Your task to perform on an android device: change keyboard looks Image 0: 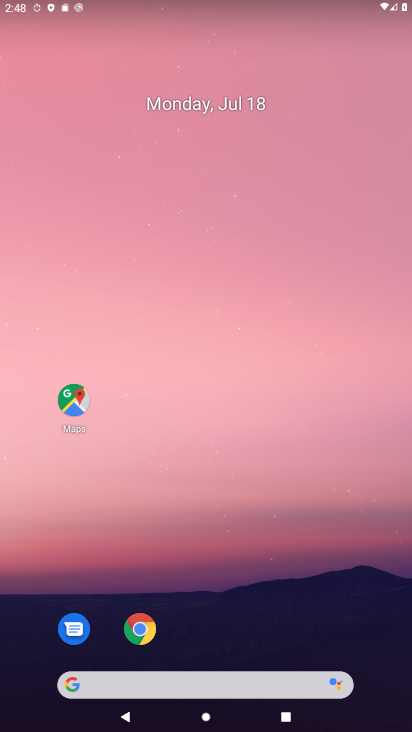
Step 0: press home button
Your task to perform on an android device: change keyboard looks Image 1: 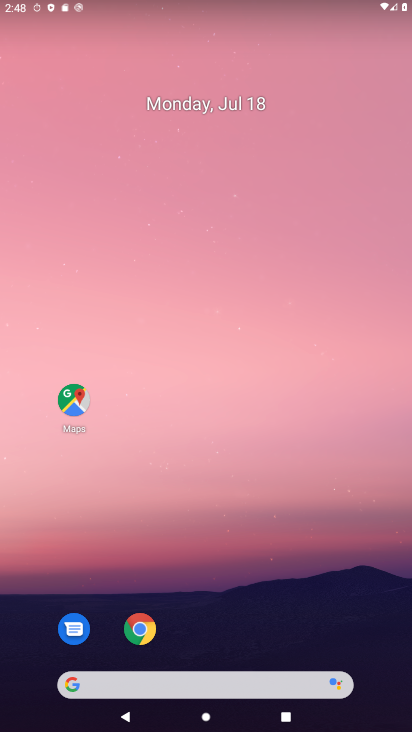
Step 1: drag from (223, 642) to (231, 52)
Your task to perform on an android device: change keyboard looks Image 2: 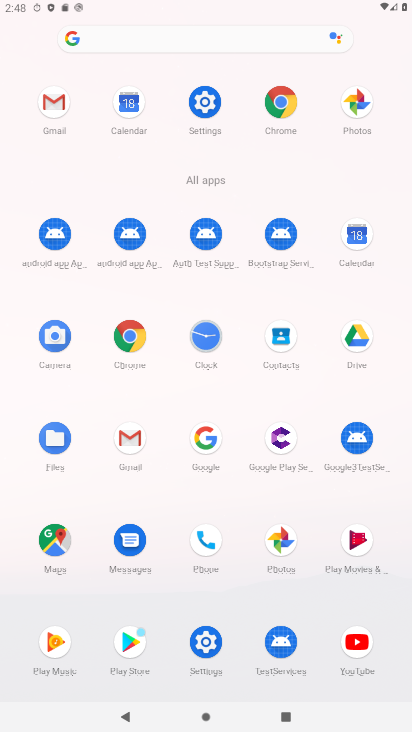
Step 2: click (205, 647)
Your task to perform on an android device: change keyboard looks Image 3: 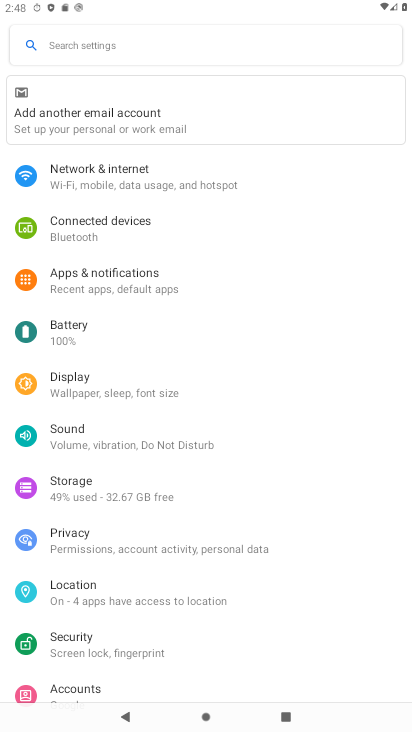
Step 3: drag from (151, 630) to (231, 144)
Your task to perform on an android device: change keyboard looks Image 4: 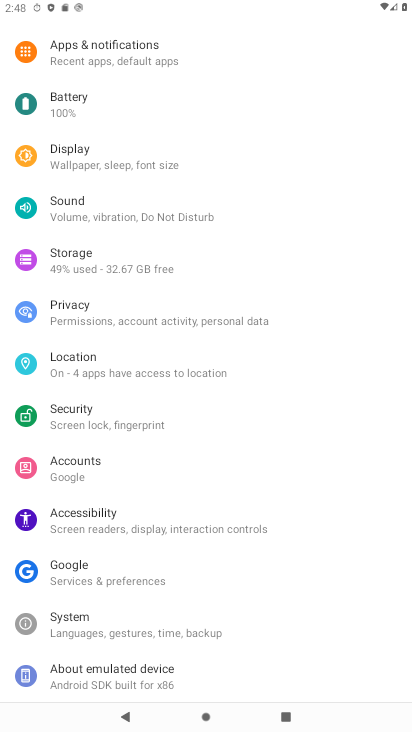
Step 4: click (97, 625)
Your task to perform on an android device: change keyboard looks Image 5: 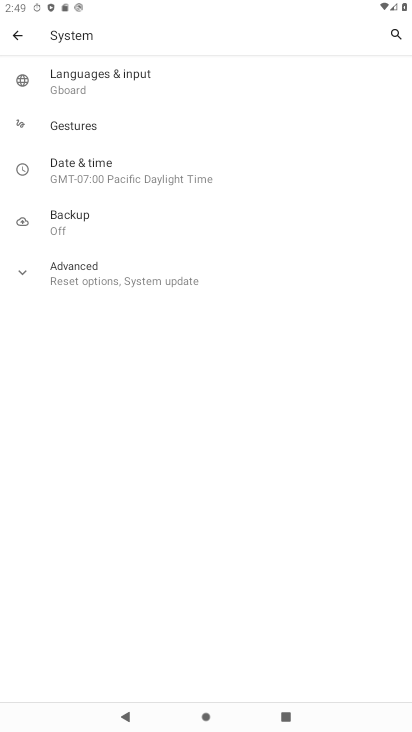
Step 5: click (106, 88)
Your task to perform on an android device: change keyboard looks Image 6: 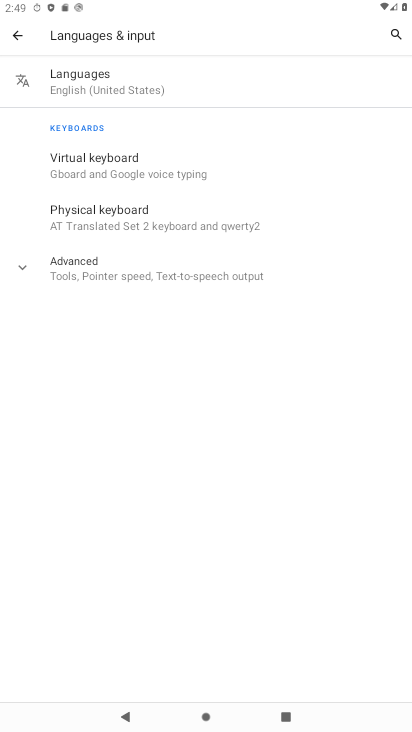
Step 6: click (106, 157)
Your task to perform on an android device: change keyboard looks Image 7: 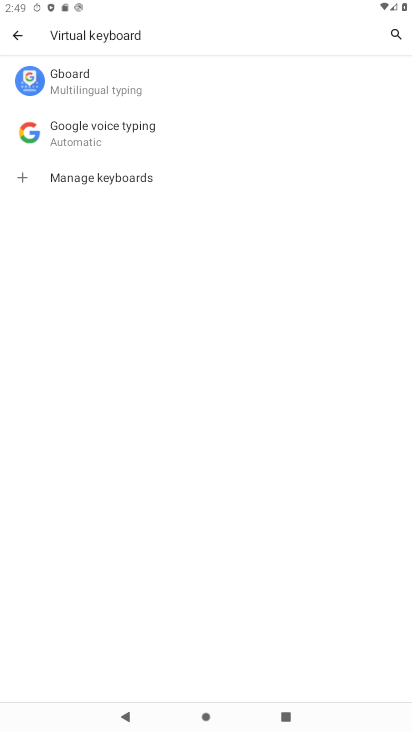
Step 7: click (94, 76)
Your task to perform on an android device: change keyboard looks Image 8: 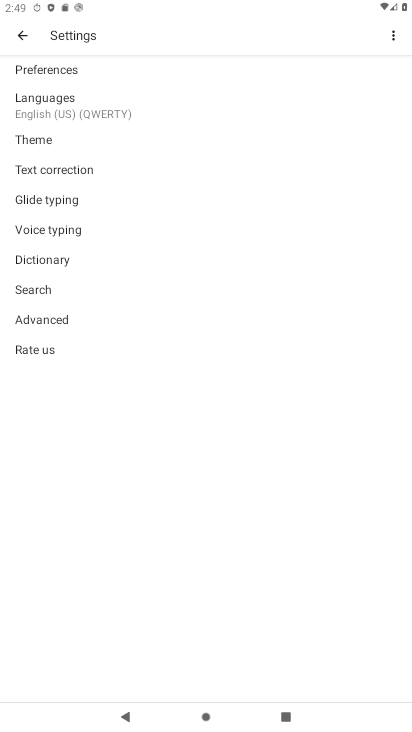
Step 8: click (53, 146)
Your task to perform on an android device: change keyboard looks Image 9: 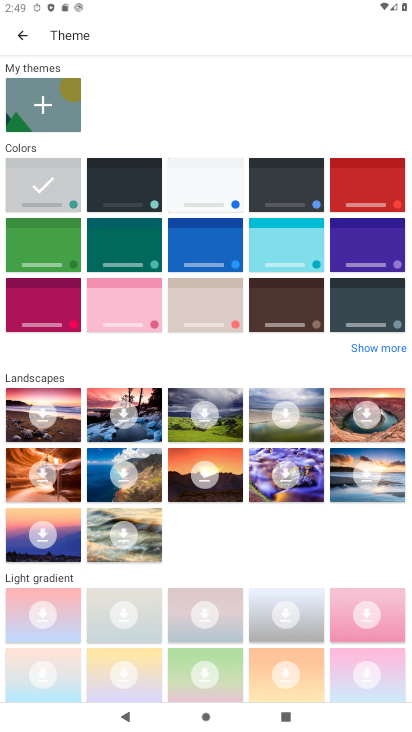
Step 9: click (118, 190)
Your task to perform on an android device: change keyboard looks Image 10: 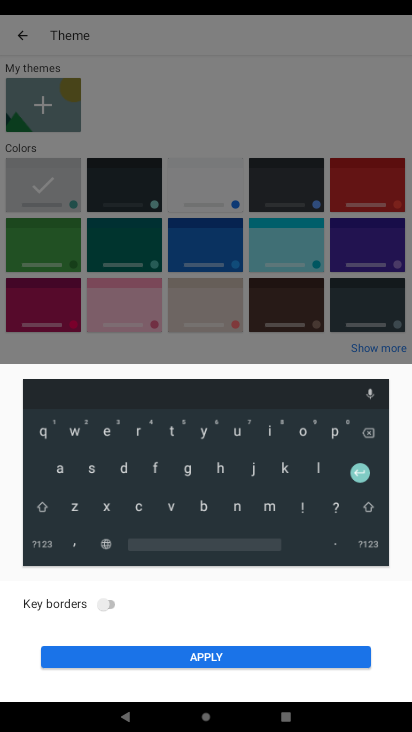
Step 10: click (247, 658)
Your task to perform on an android device: change keyboard looks Image 11: 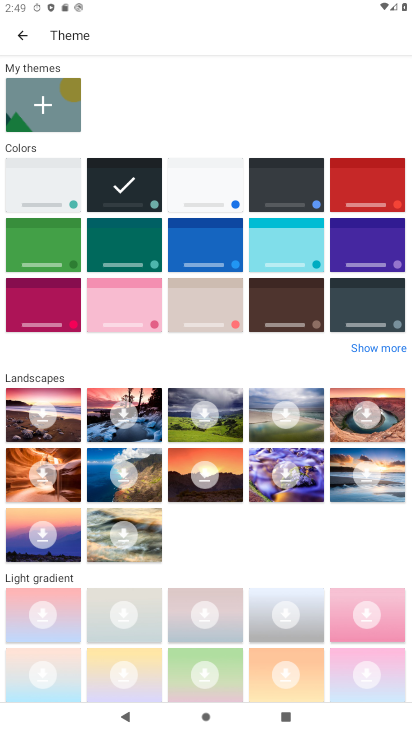
Step 11: task complete